Your task to perform on an android device: change notification settings in the gmail app Image 0: 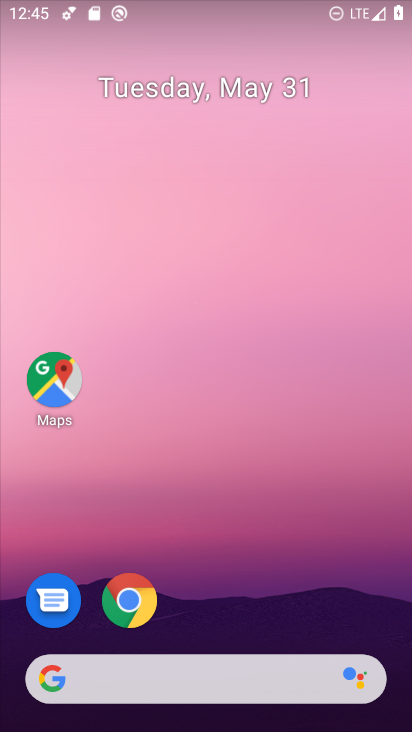
Step 0: drag from (222, 722) to (208, 75)
Your task to perform on an android device: change notification settings in the gmail app Image 1: 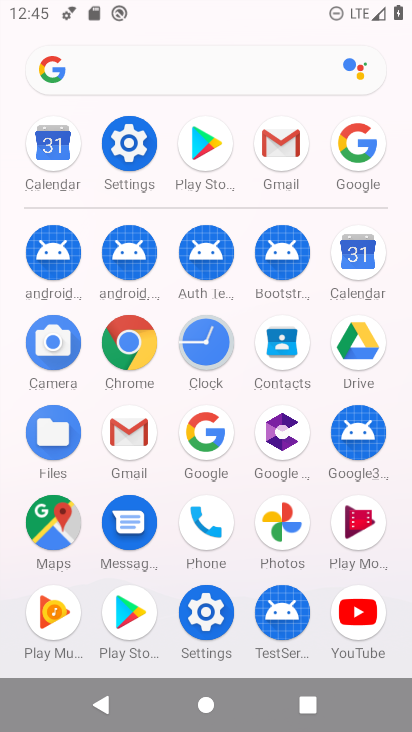
Step 1: click (137, 432)
Your task to perform on an android device: change notification settings in the gmail app Image 2: 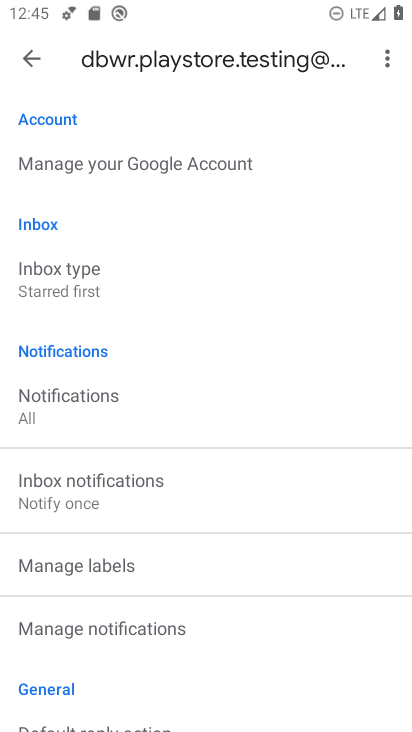
Step 2: click (66, 391)
Your task to perform on an android device: change notification settings in the gmail app Image 3: 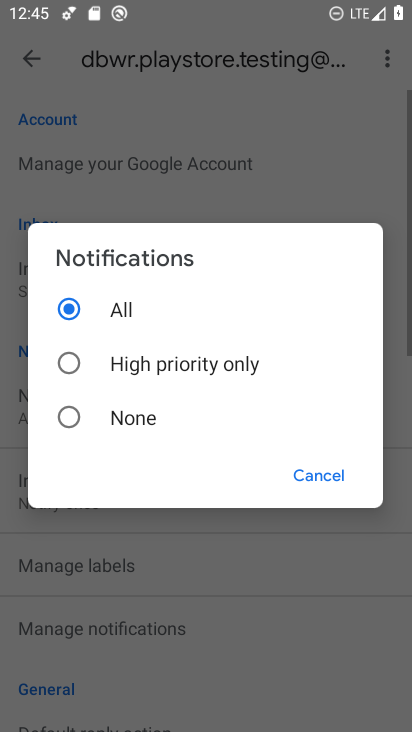
Step 3: click (64, 414)
Your task to perform on an android device: change notification settings in the gmail app Image 4: 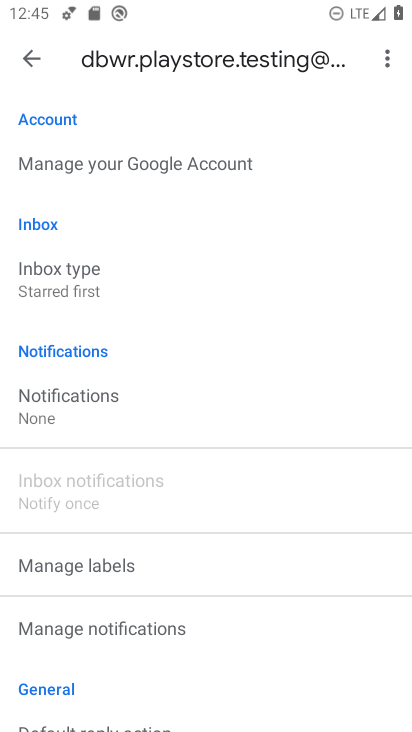
Step 4: task complete